Your task to perform on an android device: Open Youtube and go to the subscriptions tab Image 0: 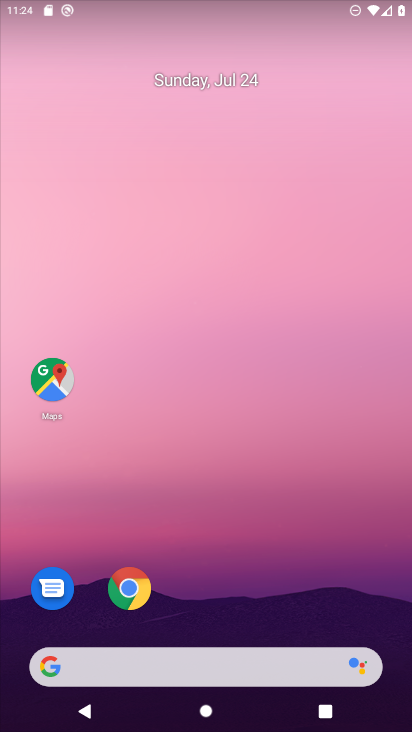
Step 0: drag from (241, 622) to (210, 61)
Your task to perform on an android device: Open Youtube and go to the subscriptions tab Image 1: 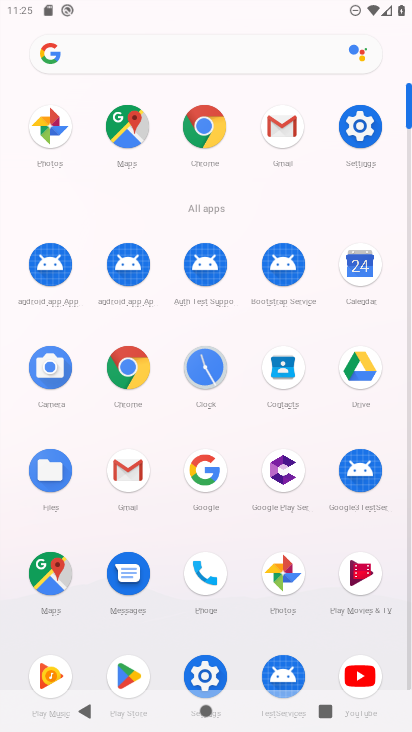
Step 1: click (357, 674)
Your task to perform on an android device: Open Youtube and go to the subscriptions tab Image 2: 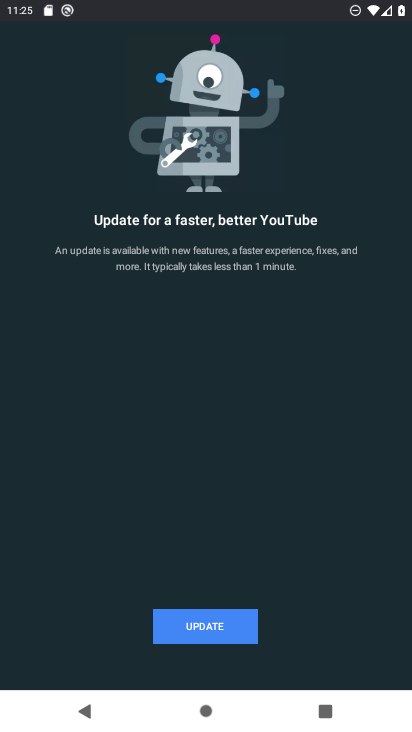
Step 2: click (229, 639)
Your task to perform on an android device: Open Youtube and go to the subscriptions tab Image 3: 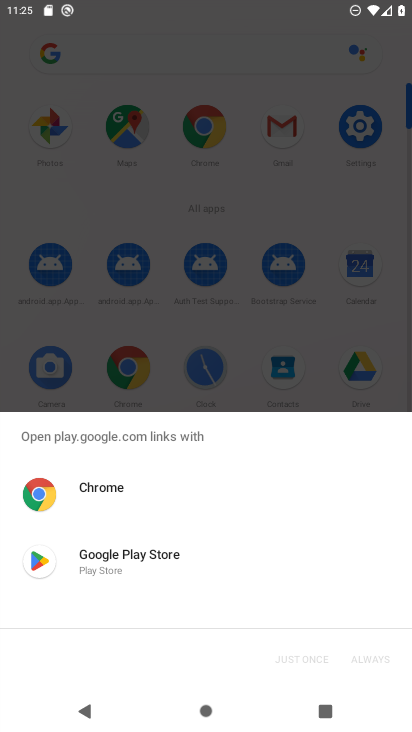
Step 3: click (205, 573)
Your task to perform on an android device: Open Youtube and go to the subscriptions tab Image 4: 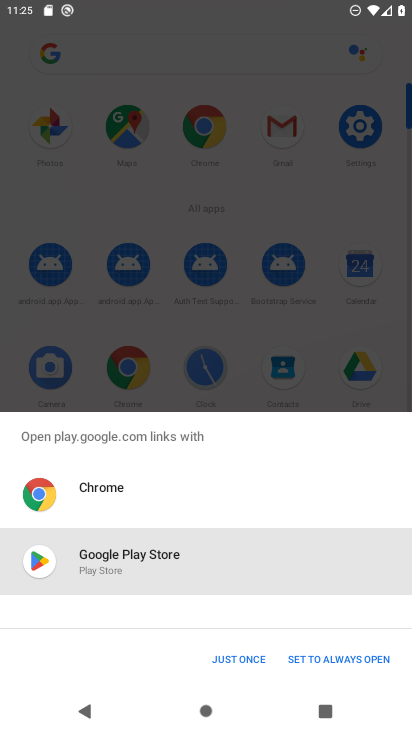
Step 4: click (242, 659)
Your task to perform on an android device: Open Youtube and go to the subscriptions tab Image 5: 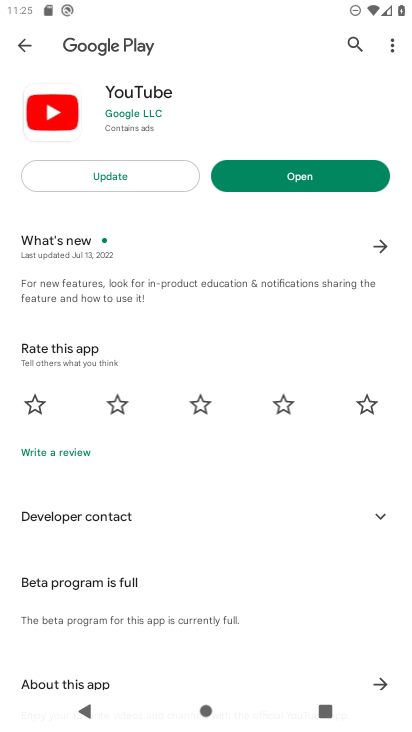
Step 5: click (139, 179)
Your task to perform on an android device: Open Youtube and go to the subscriptions tab Image 6: 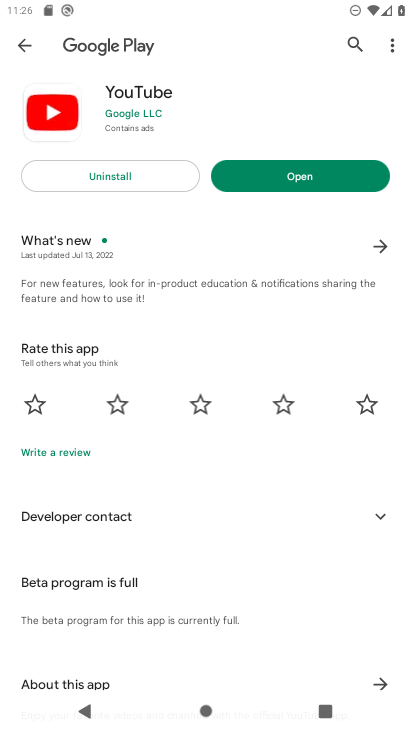
Step 6: click (313, 179)
Your task to perform on an android device: Open Youtube and go to the subscriptions tab Image 7: 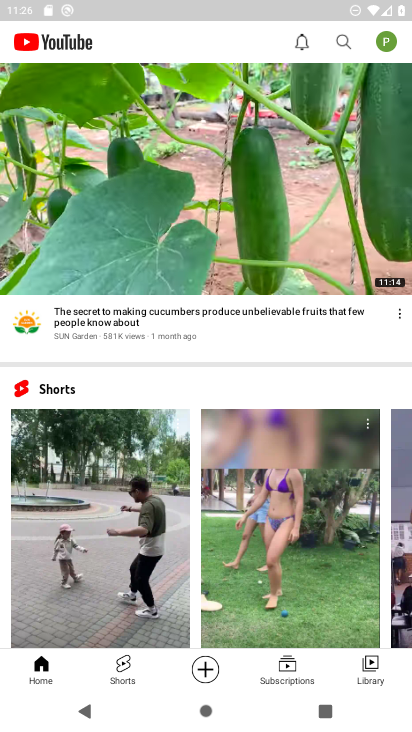
Step 7: click (281, 681)
Your task to perform on an android device: Open Youtube and go to the subscriptions tab Image 8: 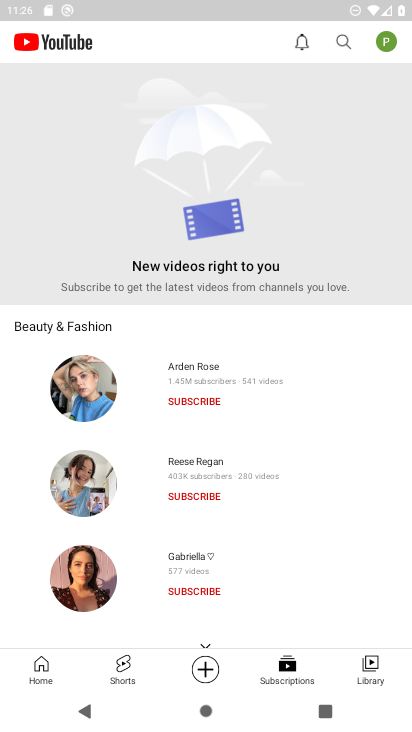
Step 8: task complete